Your task to perform on an android device: delete location history Image 0: 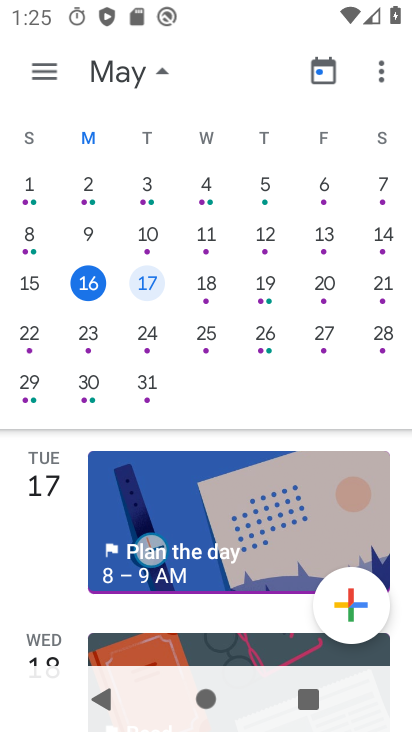
Step 0: press home button
Your task to perform on an android device: delete location history Image 1: 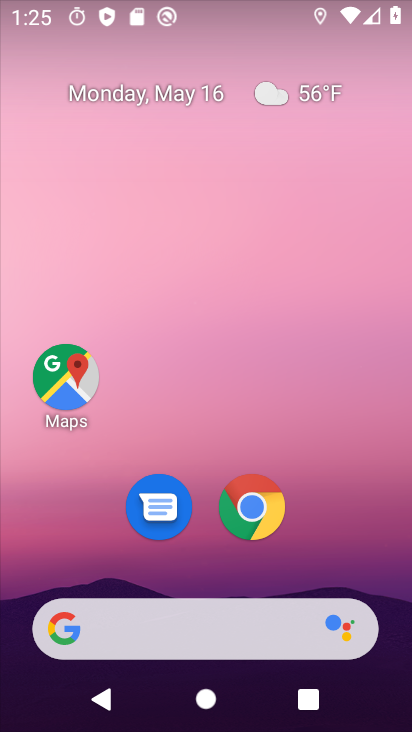
Step 1: drag from (221, 558) to (261, 16)
Your task to perform on an android device: delete location history Image 2: 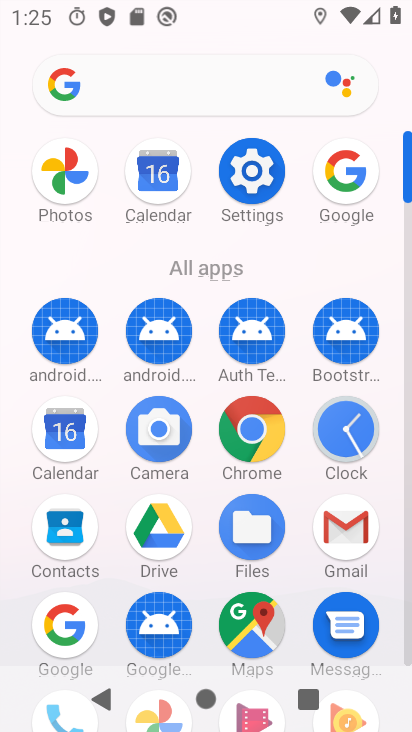
Step 2: click (247, 164)
Your task to perform on an android device: delete location history Image 3: 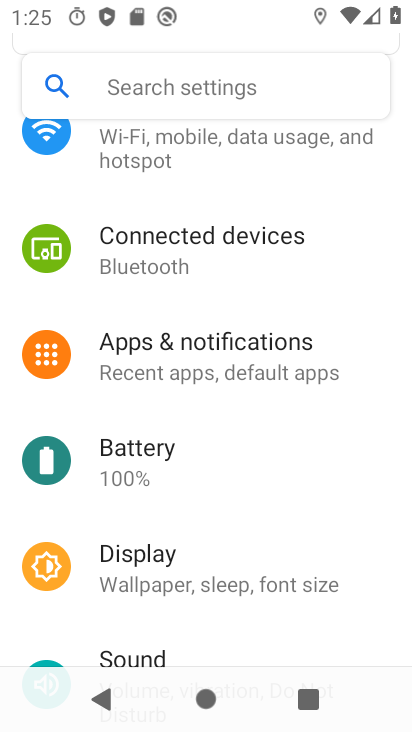
Step 3: drag from (244, 616) to (291, 19)
Your task to perform on an android device: delete location history Image 4: 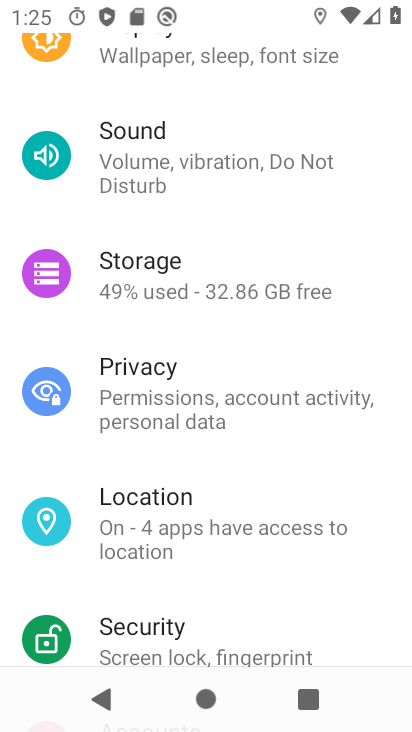
Step 4: click (144, 506)
Your task to perform on an android device: delete location history Image 5: 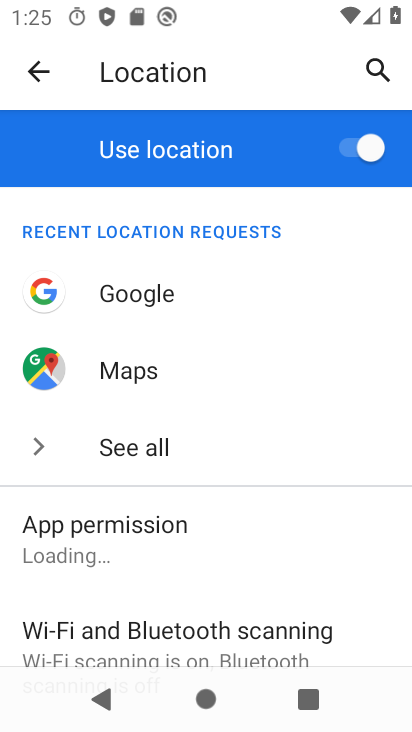
Step 5: drag from (237, 555) to (225, 162)
Your task to perform on an android device: delete location history Image 6: 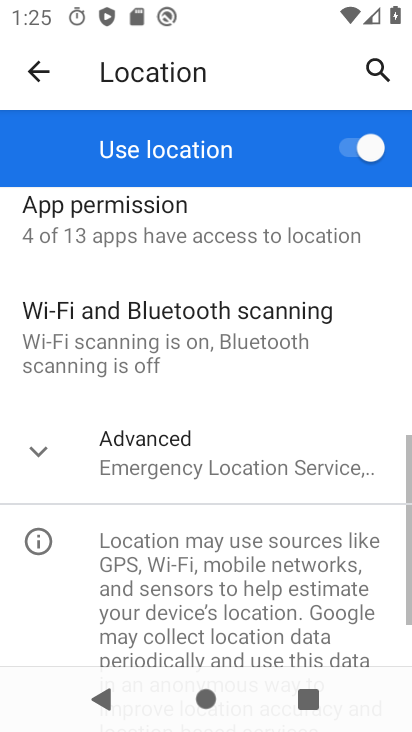
Step 6: click (150, 458)
Your task to perform on an android device: delete location history Image 7: 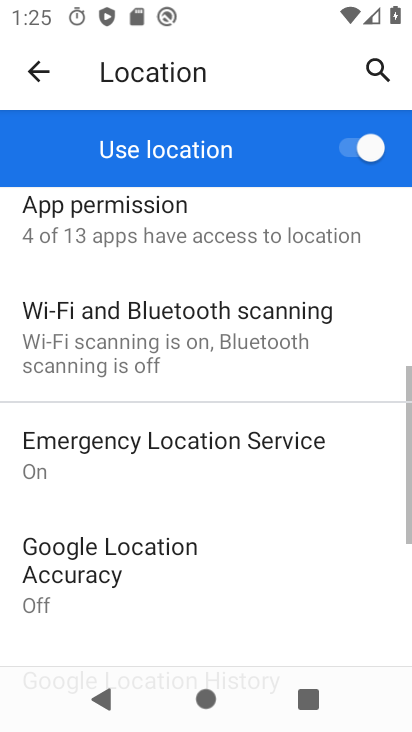
Step 7: drag from (258, 573) to (206, 186)
Your task to perform on an android device: delete location history Image 8: 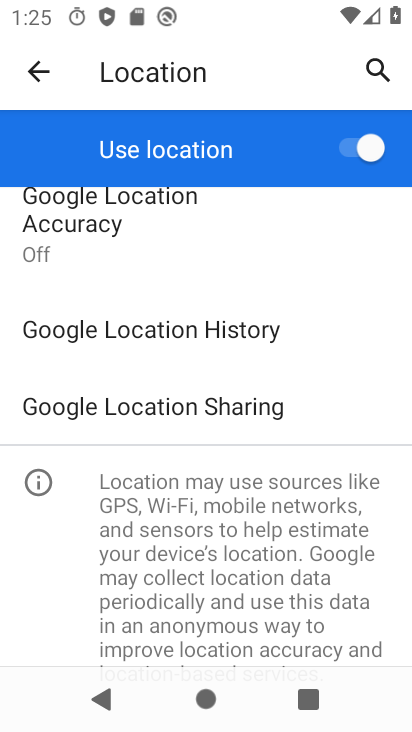
Step 8: click (152, 328)
Your task to perform on an android device: delete location history Image 9: 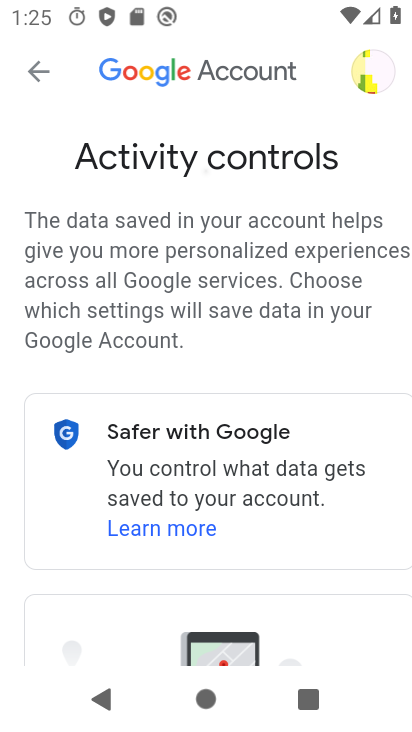
Step 9: drag from (258, 584) to (240, 32)
Your task to perform on an android device: delete location history Image 10: 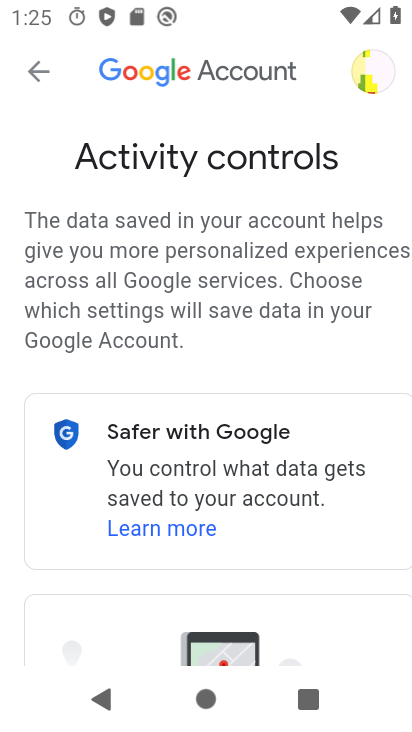
Step 10: drag from (201, 564) to (221, 58)
Your task to perform on an android device: delete location history Image 11: 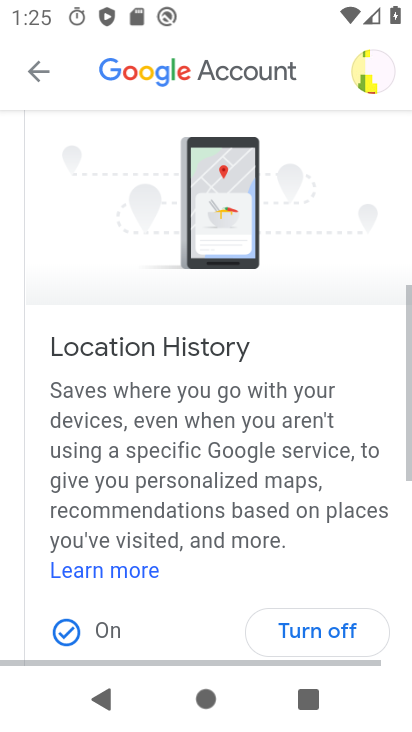
Step 11: drag from (180, 543) to (204, 202)
Your task to perform on an android device: delete location history Image 12: 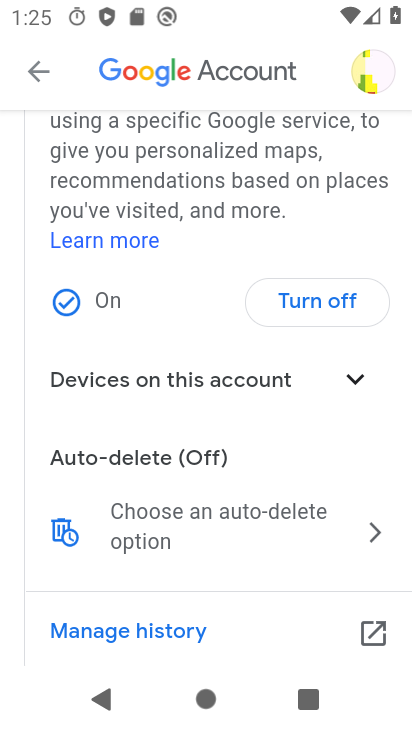
Step 12: drag from (78, 598) to (79, 386)
Your task to perform on an android device: delete location history Image 13: 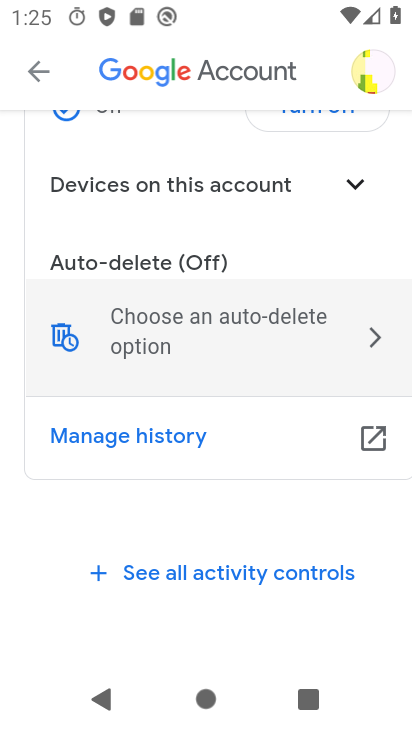
Step 13: click (59, 330)
Your task to perform on an android device: delete location history Image 14: 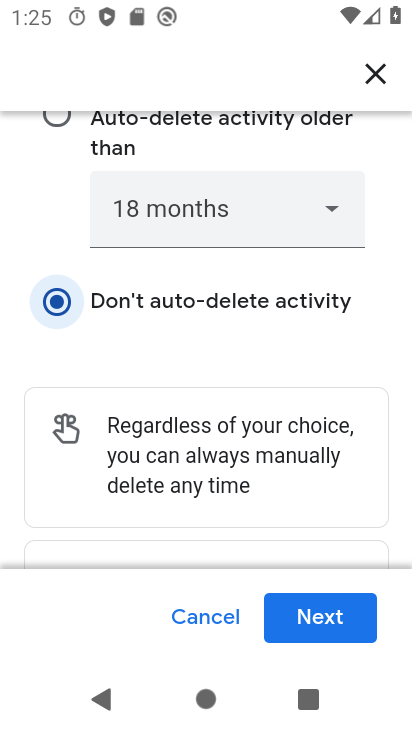
Step 14: click (307, 617)
Your task to perform on an android device: delete location history Image 15: 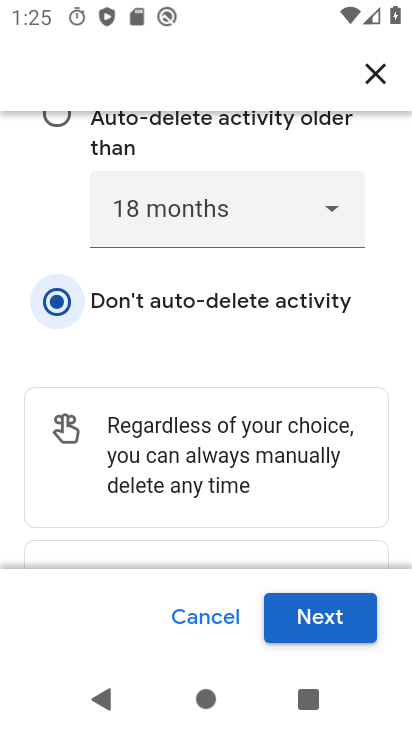
Step 15: click (307, 616)
Your task to perform on an android device: delete location history Image 16: 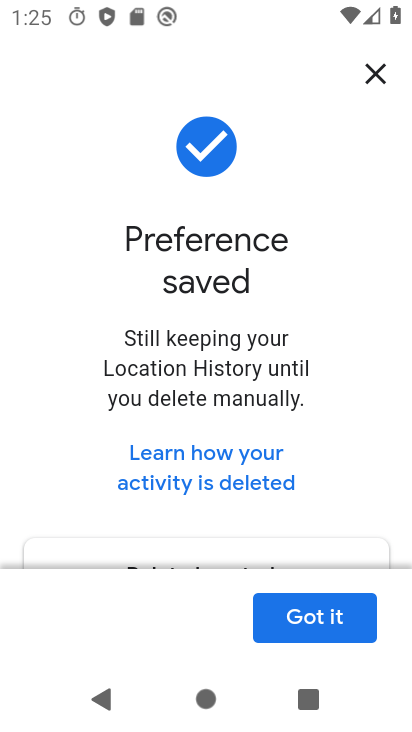
Step 16: click (315, 623)
Your task to perform on an android device: delete location history Image 17: 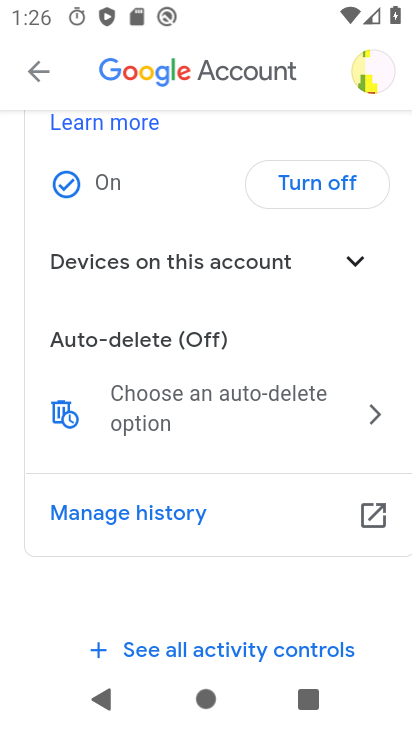
Step 17: task complete